Your task to perform on an android device: Add "macbook air" to the cart on amazon.com, then select checkout. Image 0: 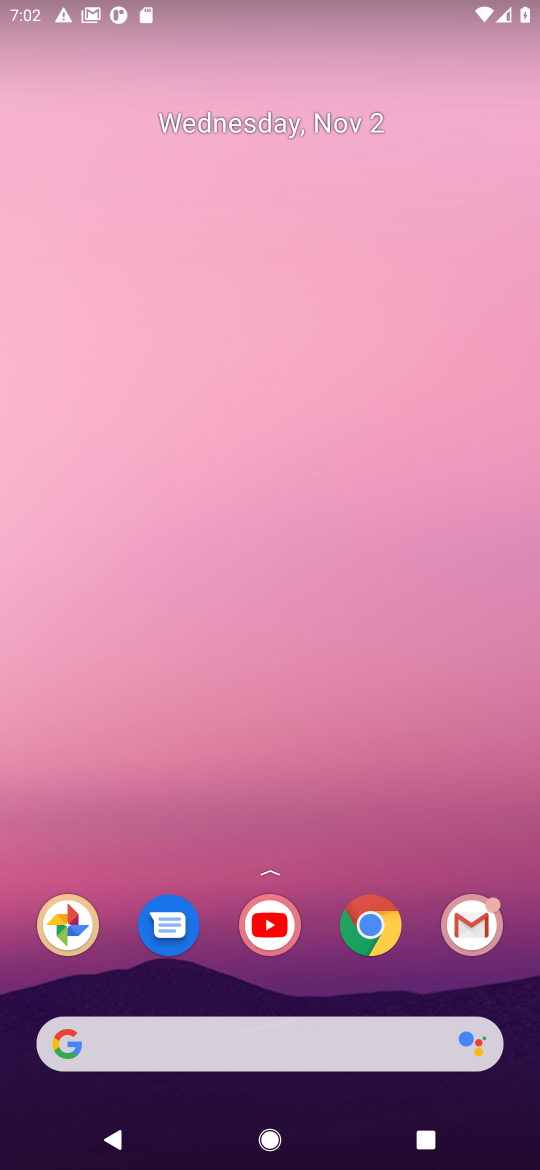
Step 0: press home button
Your task to perform on an android device: Add "macbook air" to the cart on amazon.com, then select checkout. Image 1: 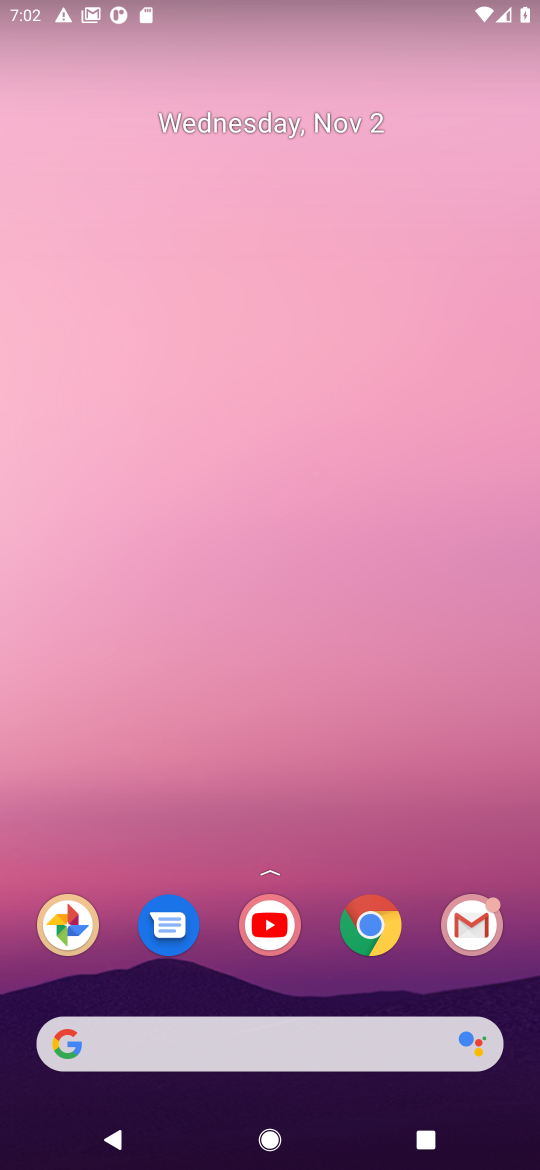
Step 1: click (95, 1044)
Your task to perform on an android device: Add "macbook air" to the cart on amazon.com, then select checkout. Image 2: 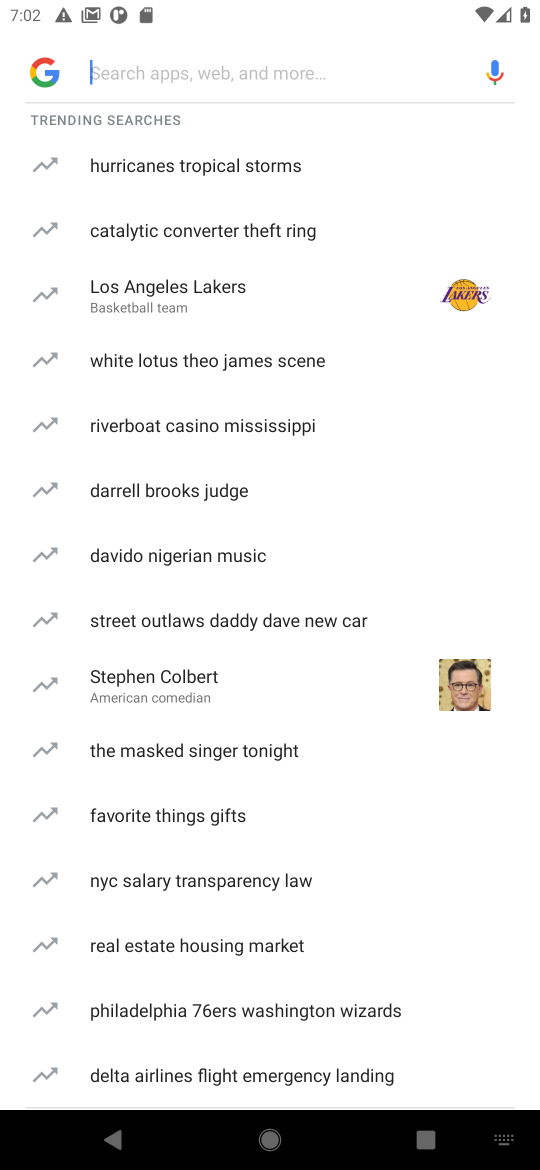
Step 2: press enter
Your task to perform on an android device: Add "macbook air" to the cart on amazon.com, then select checkout. Image 3: 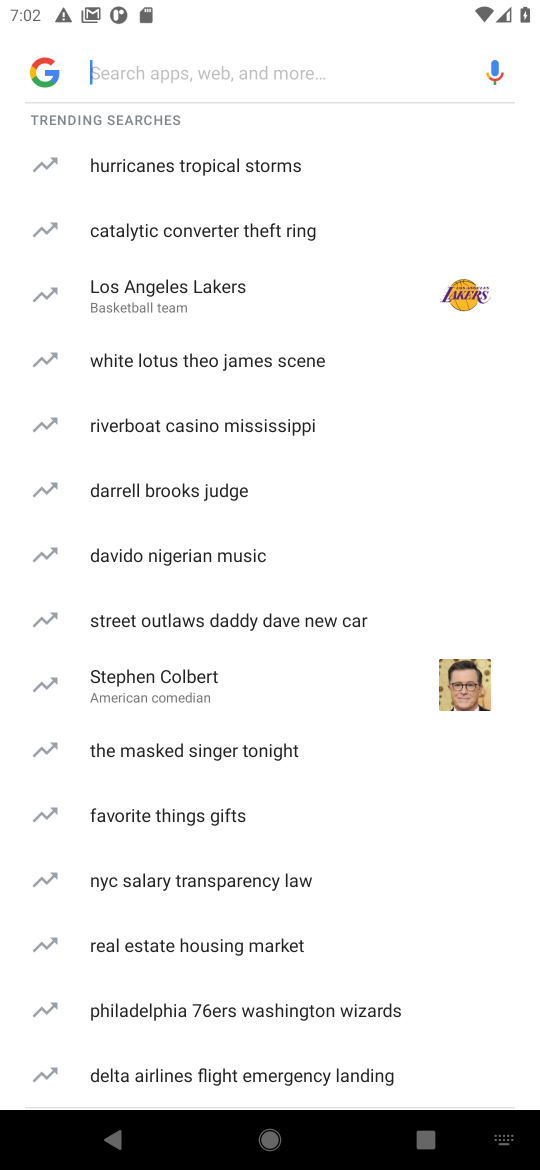
Step 3: type "amazon.com"
Your task to perform on an android device: Add "macbook air" to the cart on amazon.com, then select checkout. Image 4: 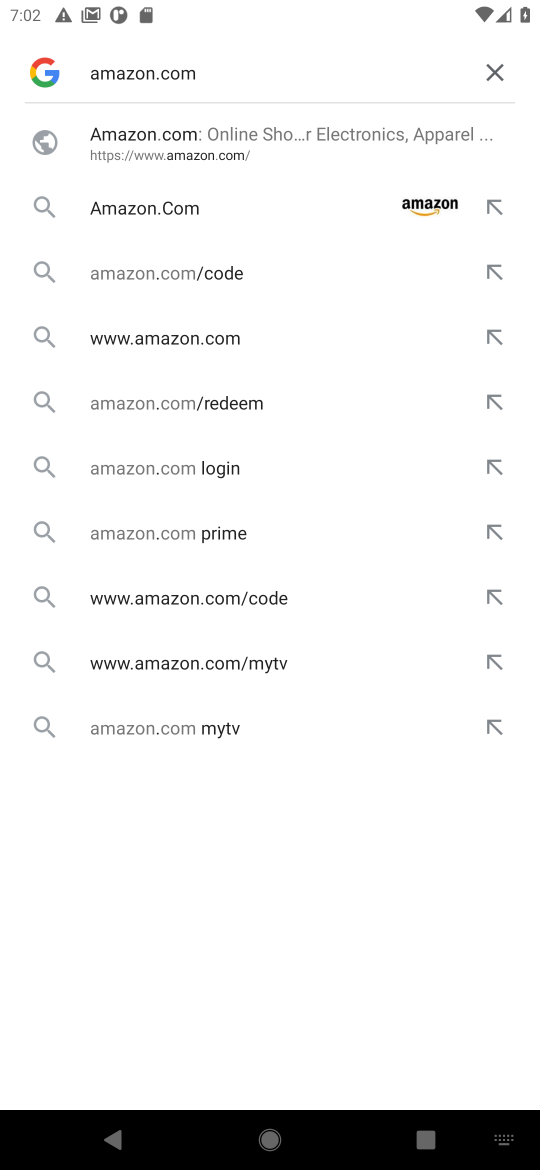
Step 4: press enter
Your task to perform on an android device: Add "macbook air" to the cart on amazon.com, then select checkout. Image 5: 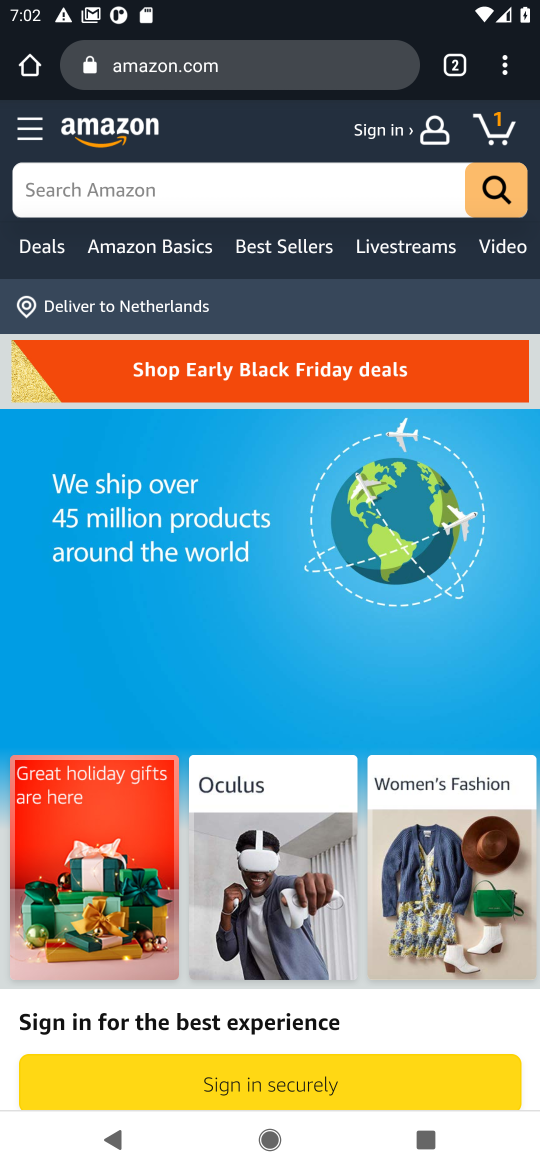
Step 5: click (59, 179)
Your task to perform on an android device: Add "macbook air" to the cart on amazon.com, then select checkout. Image 6: 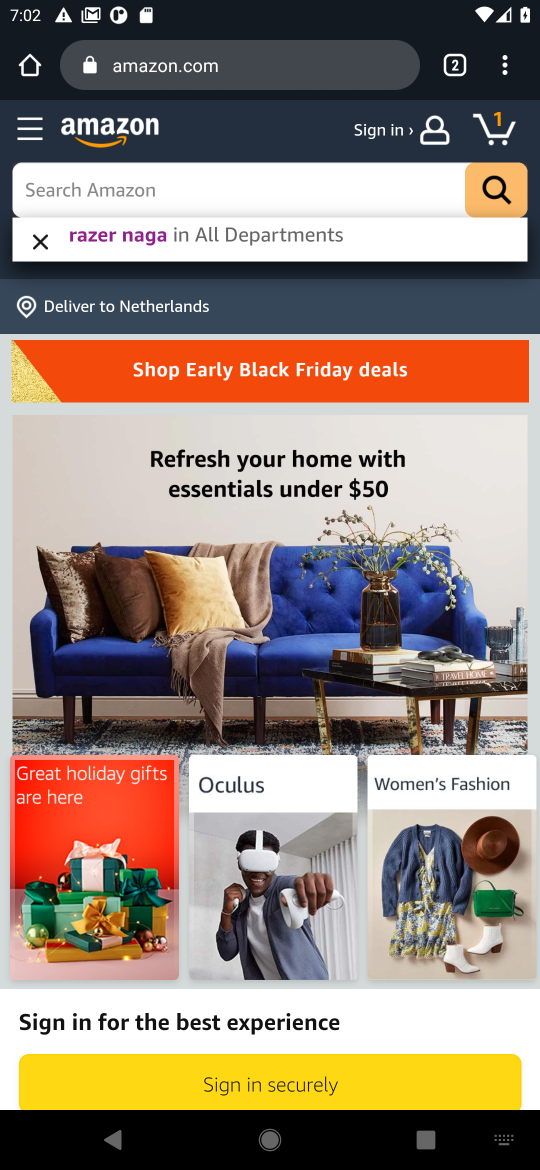
Step 6: type "macbook air"
Your task to perform on an android device: Add "macbook air" to the cart on amazon.com, then select checkout. Image 7: 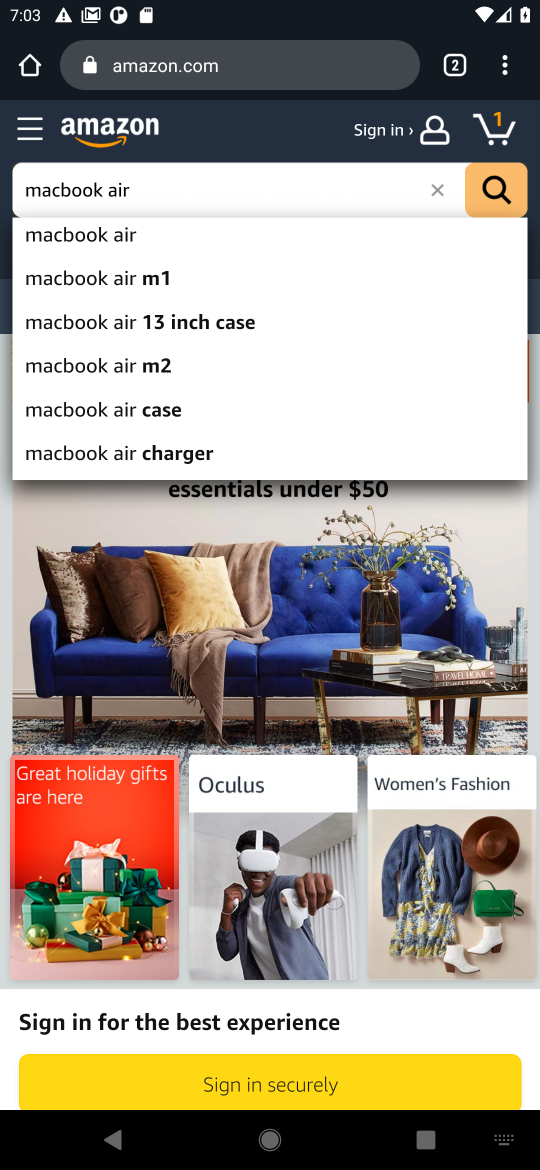
Step 7: click (504, 197)
Your task to perform on an android device: Add "macbook air" to the cart on amazon.com, then select checkout. Image 8: 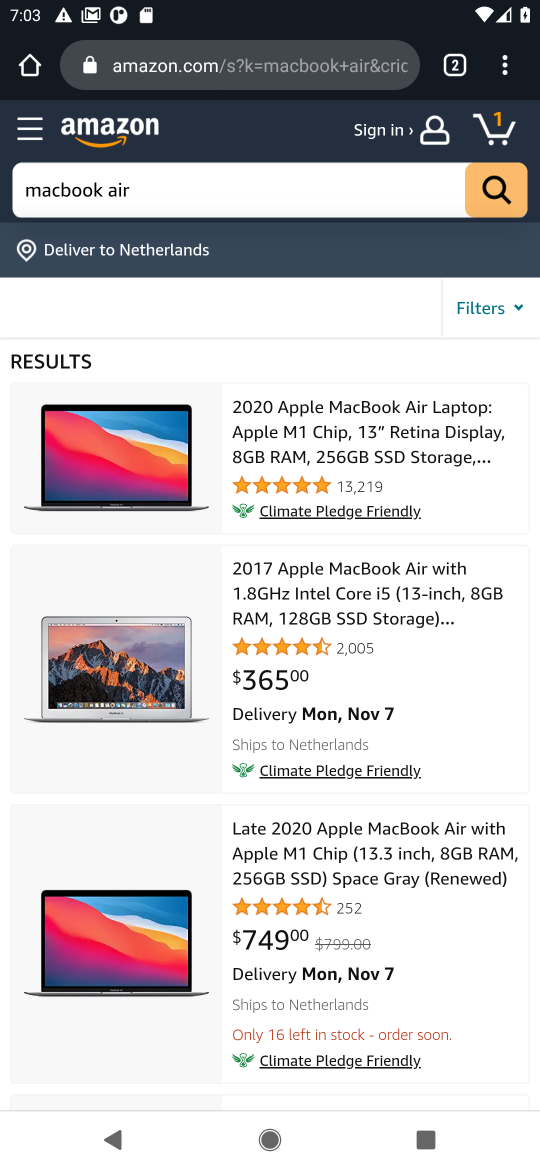
Step 8: click (345, 434)
Your task to perform on an android device: Add "macbook air" to the cart on amazon.com, then select checkout. Image 9: 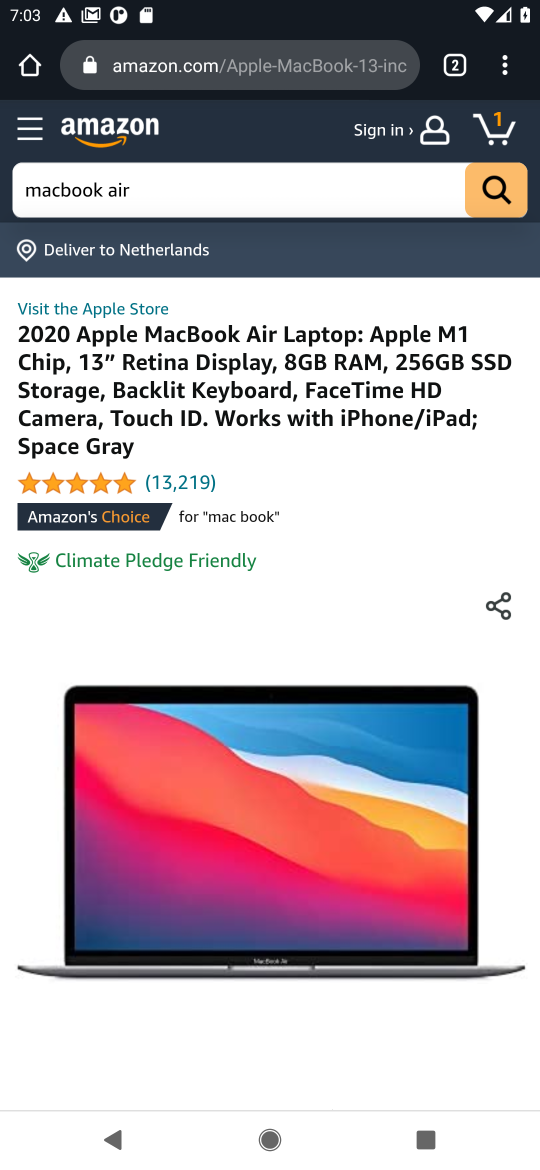
Step 9: drag from (310, 848) to (347, 413)
Your task to perform on an android device: Add "macbook air" to the cart on amazon.com, then select checkout. Image 10: 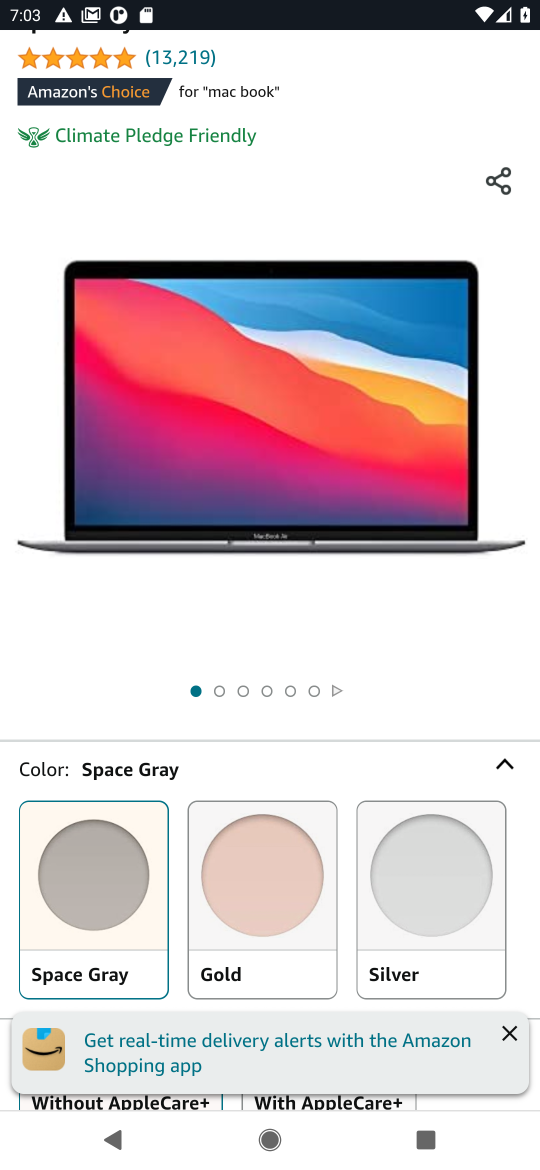
Step 10: drag from (304, 955) to (355, 451)
Your task to perform on an android device: Add "macbook air" to the cart on amazon.com, then select checkout. Image 11: 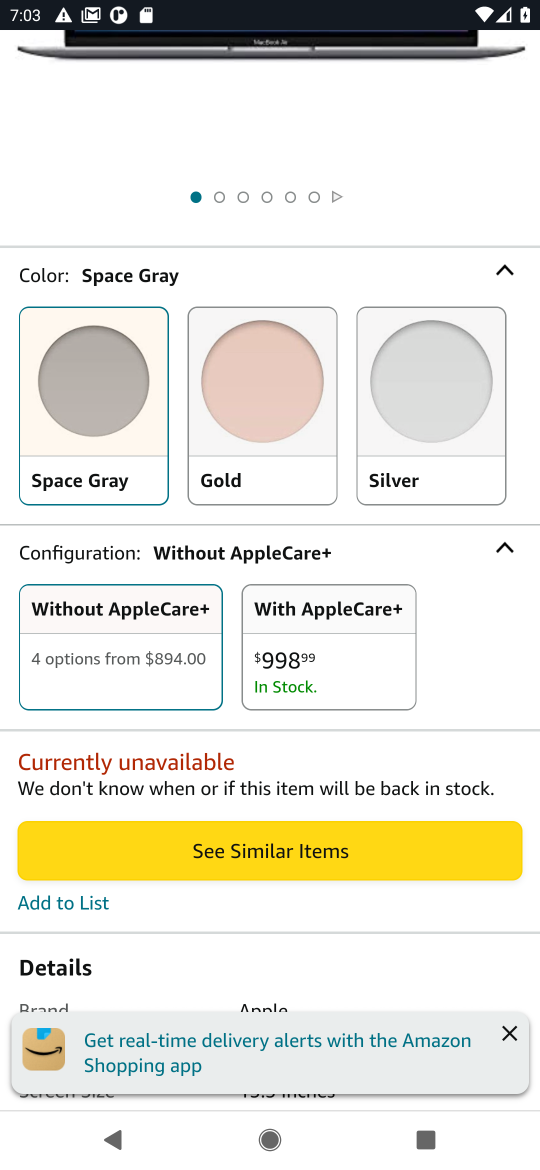
Step 11: press back button
Your task to perform on an android device: Add "macbook air" to the cart on amazon.com, then select checkout. Image 12: 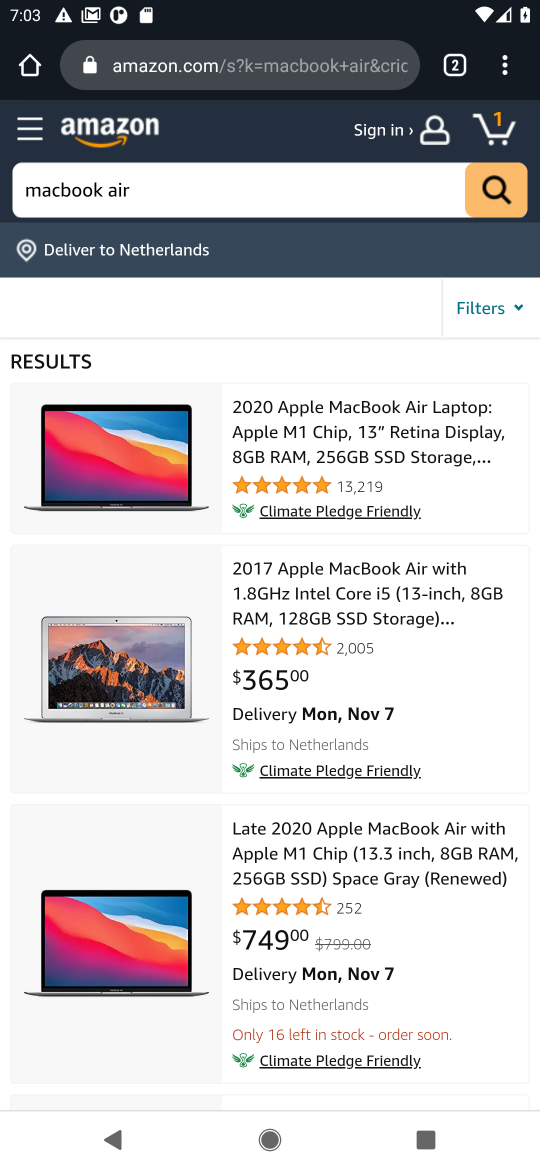
Step 12: drag from (340, 924) to (387, 578)
Your task to perform on an android device: Add "macbook air" to the cart on amazon.com, then select checkout. Image 13: 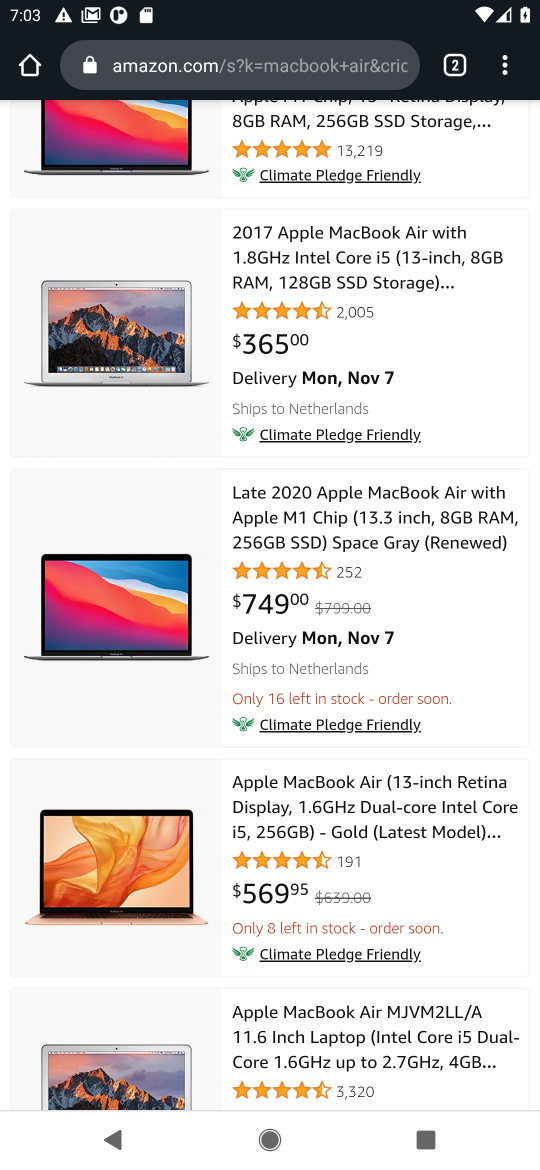
Step 13: click (388, 529)
Your task to perform on an android device: Add "macbook air" to the cart on amazon.com, then select checkout. Image 14: 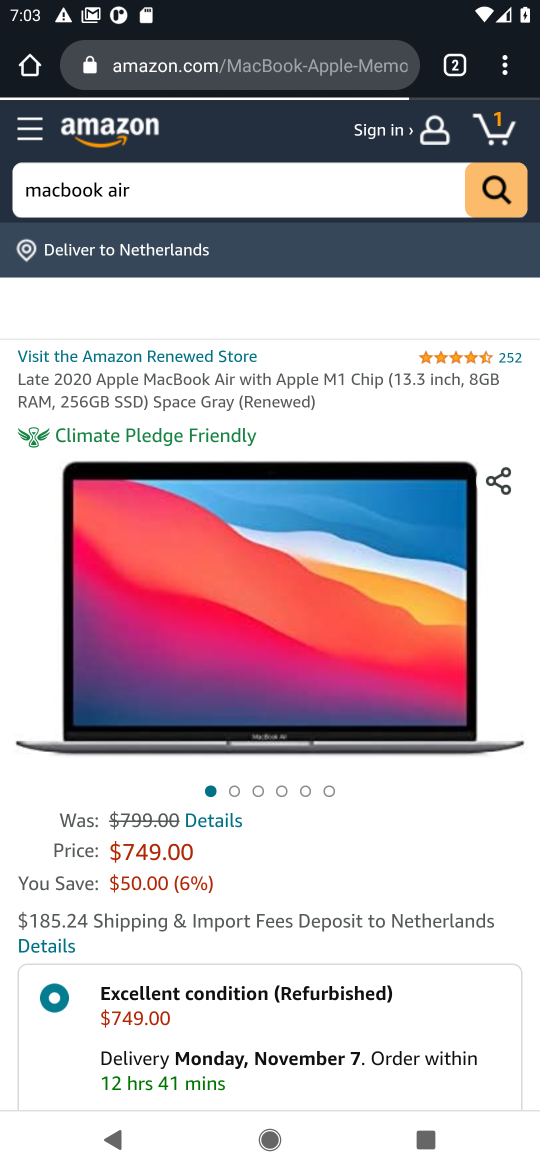
Step 14: drag from (358, 949) to (421, 390)
Your task to perform on an android device: Add "macbook air" to the cart on amazon.com, then select checkout. Image 15: 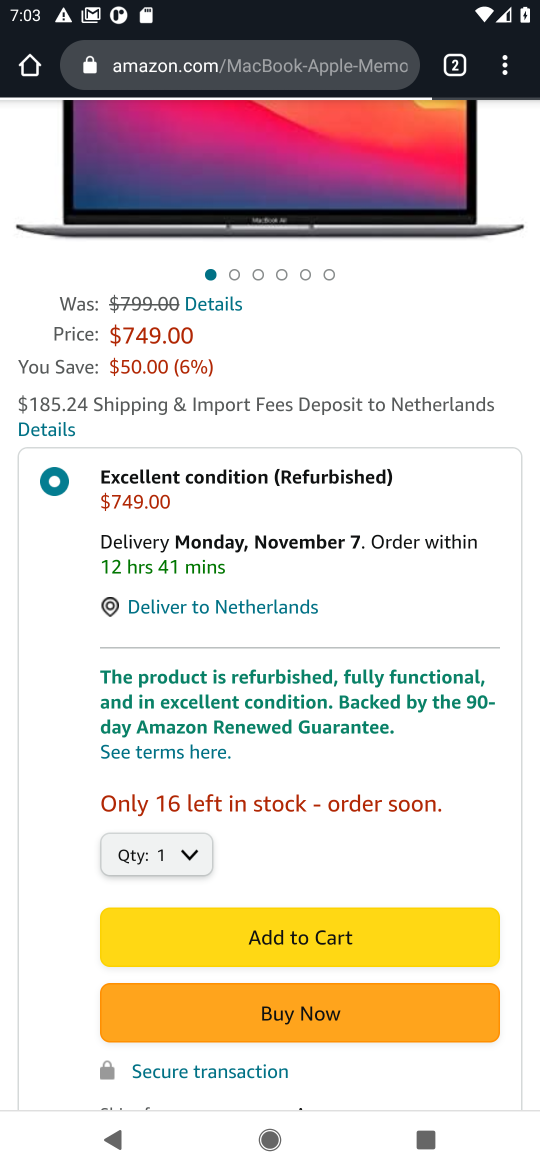
Step 15: click (399, 911)
Your task to perform on an android device: Add "macbook air" to the cart on amazon.com, then select checkout. Image 16: 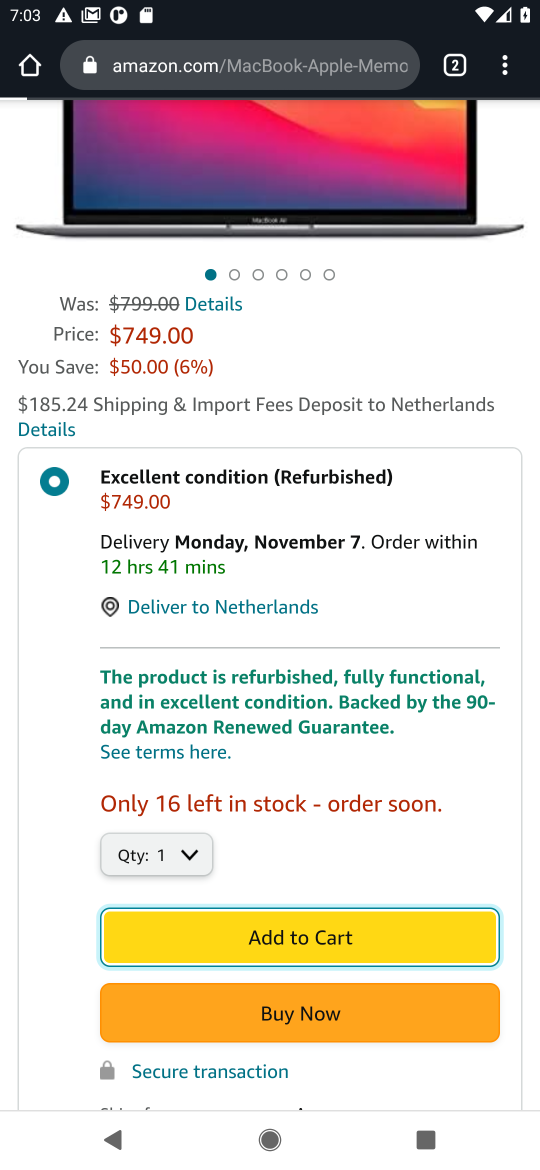
Step 16: click (320, 937)
Your task to perform on an android device: Add "macbook air" to the cart on amazon.com, then select checkout. Image 17: 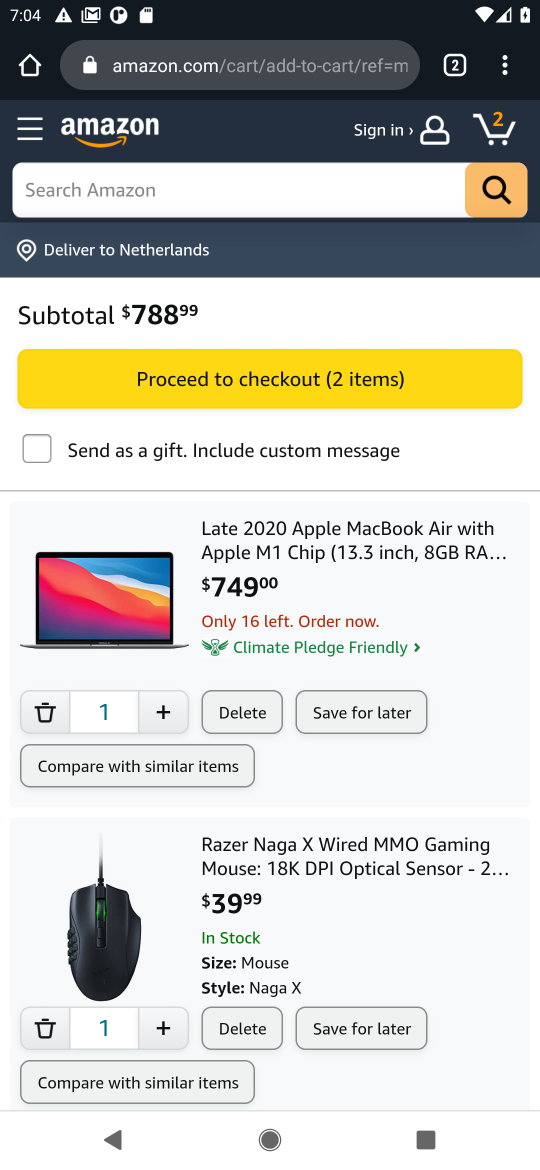
Step 17: click (324, 381)
Your task to perform on an android device: Add "macbook air" to the cart on amazon.com, then select checkout. Image 18: 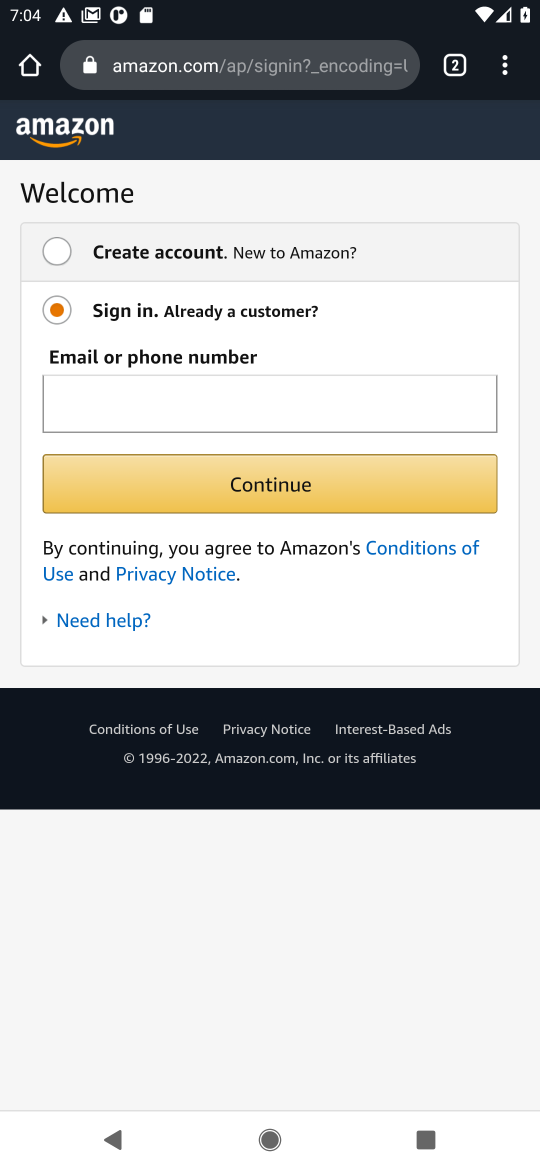
Step 18: task complete